Your task to perform on an android device: check out phone information Image 0: 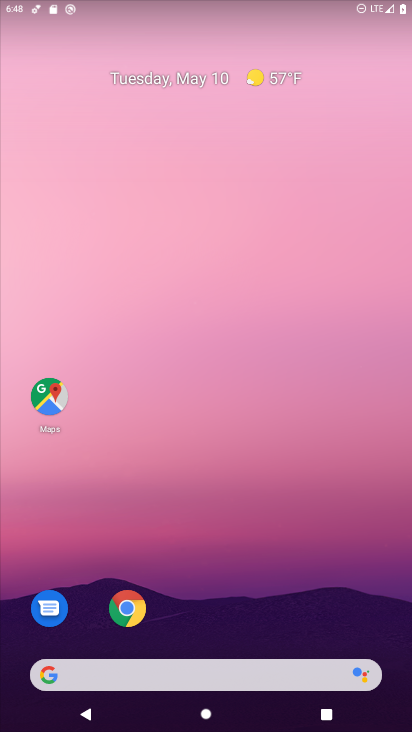
Step 0: drag from (346, 623) to (308, 82)
Your task to perform on an android device: check out phone information Image 1: 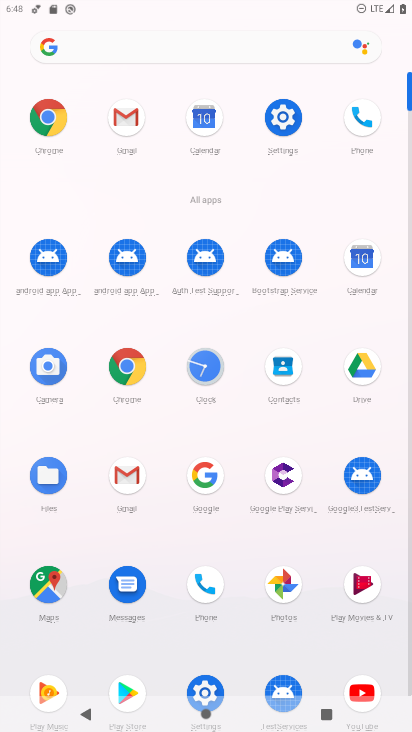
Step 1: click (290, 135)
Your task to perform on an android device: check out phone information Image 2: 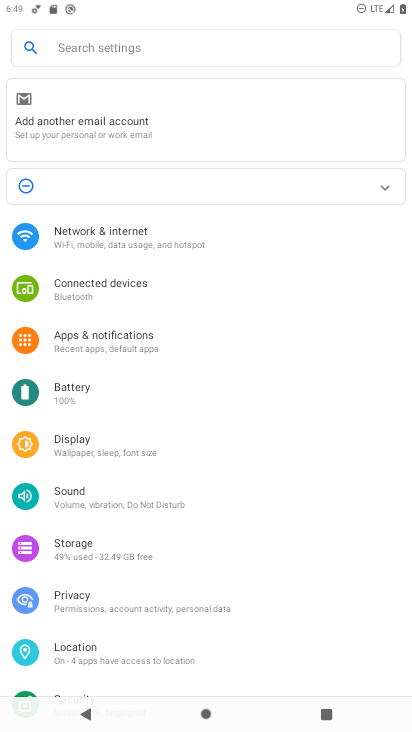
Step 2: drag from (102, 627) to (125, 34)
Your task to perform on an android device: check out phone information Image 3: 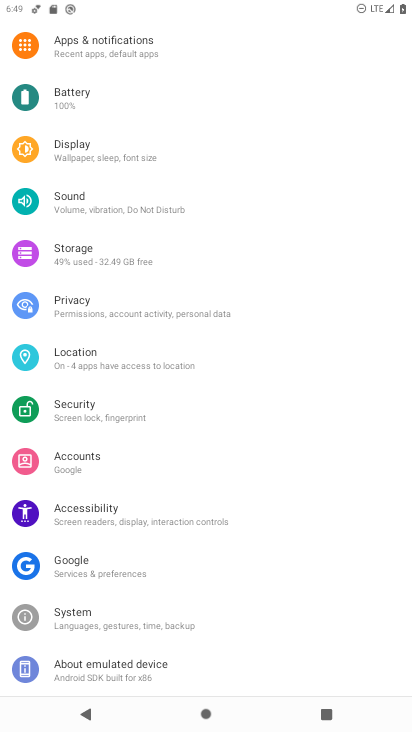
Step 3: click (111, 666)
Your task to perform on an android device: check out phone information Image 4: 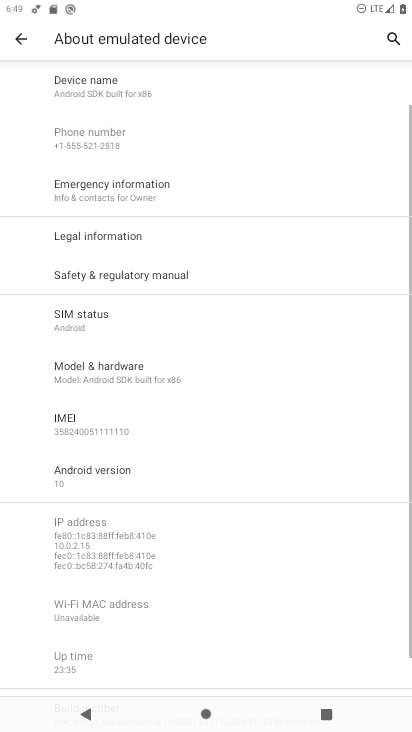
Step 4: click (122, 241)
Your task to perform on an android device: check out phone information Image 5: 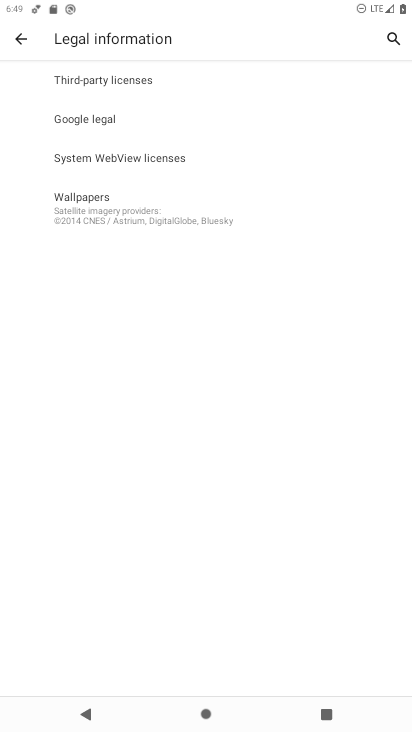
Step 5: task complete